Your task to perform on an android device: change the clock display to show seconds Image 0: 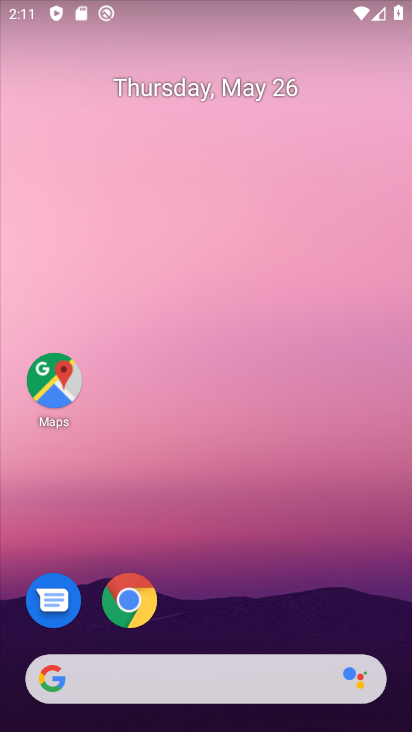
Step 0: drag from (283, 653) to (255, 198)
Your task to perform on an android device: change the clock display to show seconds Image 1: 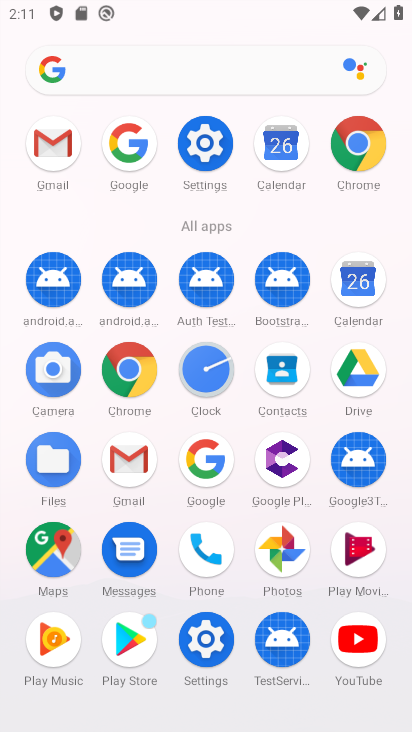
Step 1: click (204, 381)
Your task to perform on an android device: change the clock display to show seconds Image 2: 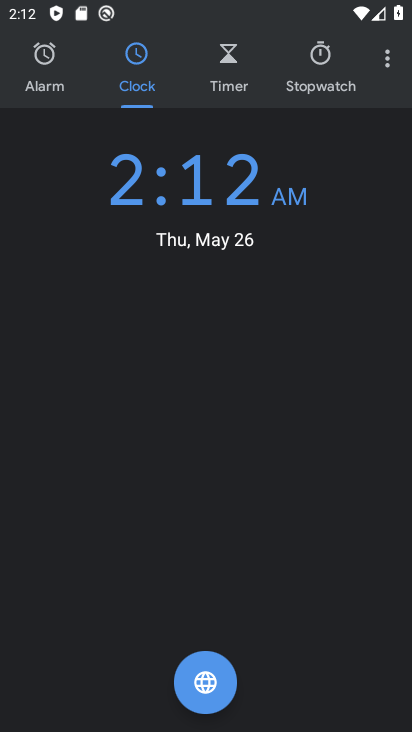
Step 2: click (384, 60)
Your task to perform on an android device: change the clock display to show seconds Image 3: 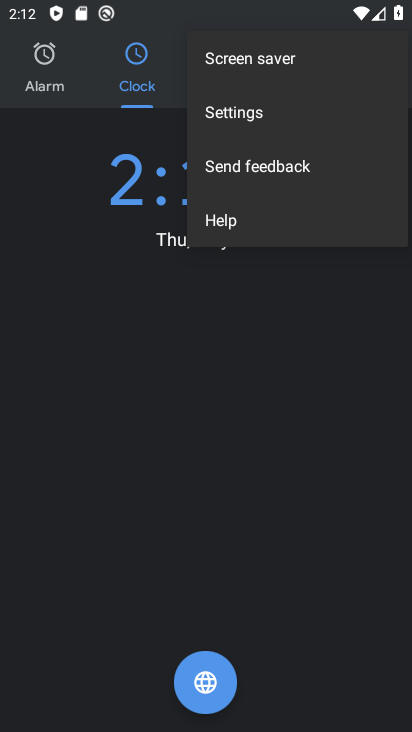
Step 3: click (292, 127)
Your task to perform on an android device: change the clock display to show seconds Image 4: 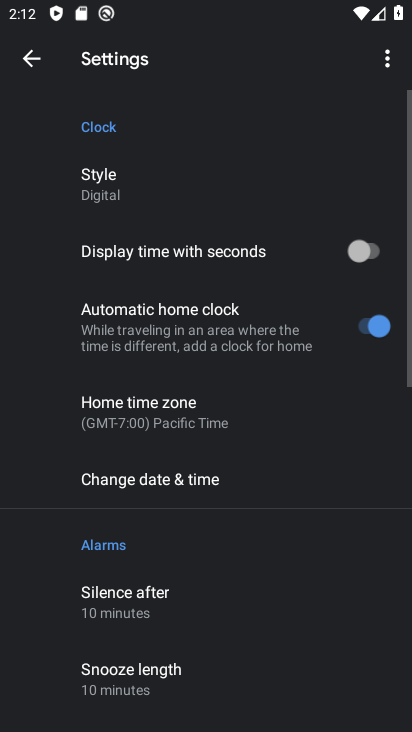
Step 4: click (356, 255)
Your task to perform on an android device: change the clock display to show seconds Image 5: 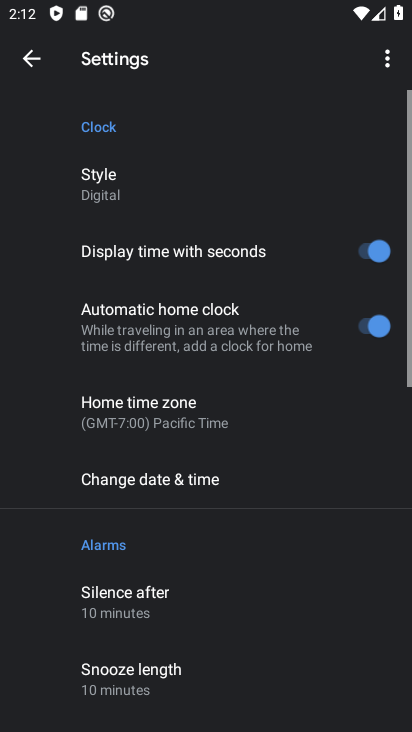
Step 5: task complete